Your task to perform on an android device: toggle wifi Image 0: 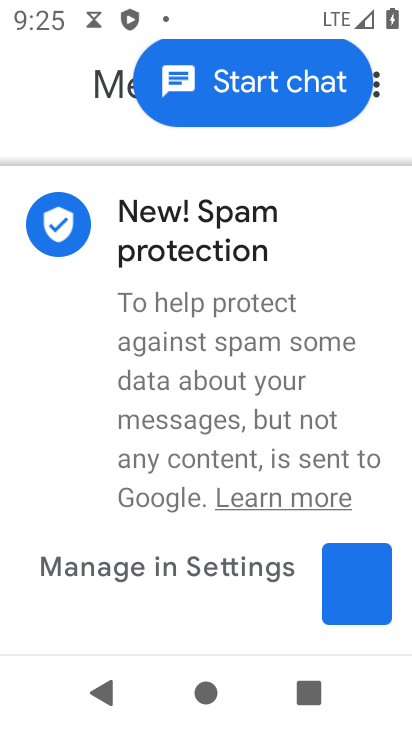
Step 0: press home button
Your task to perform on an android device: toggle wifi Image 1: 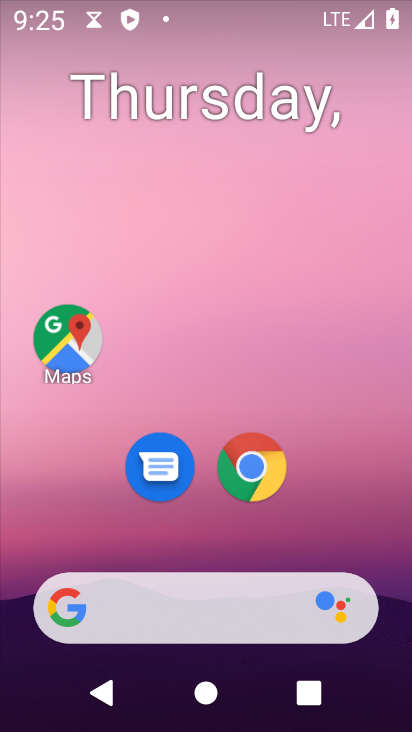
Step 1: drag from (207, 539) to (218, 71)
Your task to perform on an android device: toggle wifi Image 2: 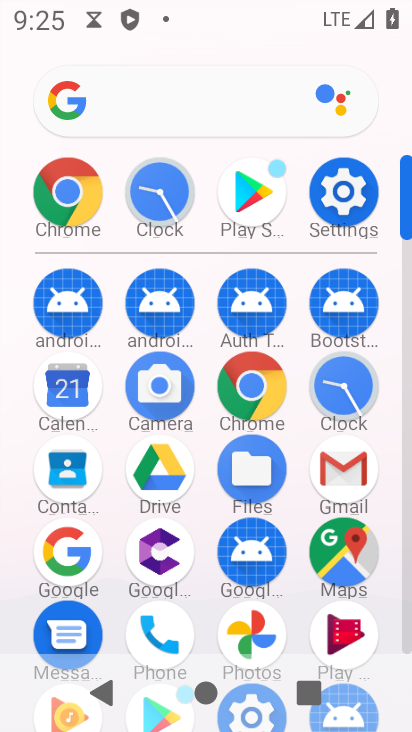
Step 2: click (339, 184)
Your task to perform on an android device: toggle wifi Image 3: 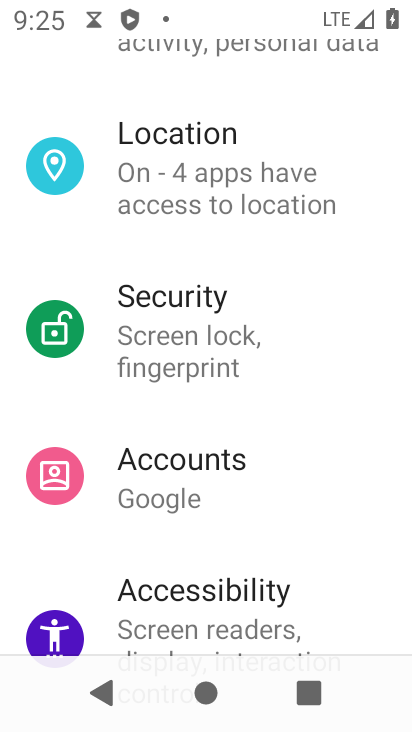
Step 3: drag from (219, 264) to (252, 362)
Your task to perform on an android device: toggle wifi Image 4: 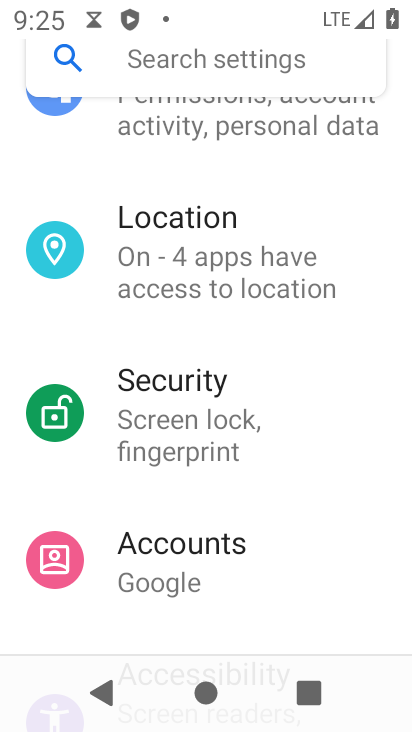
Step 4: drag from (196, 288) to (201, 361)
Your task to perform on an android device: toggle wifi Image 5: 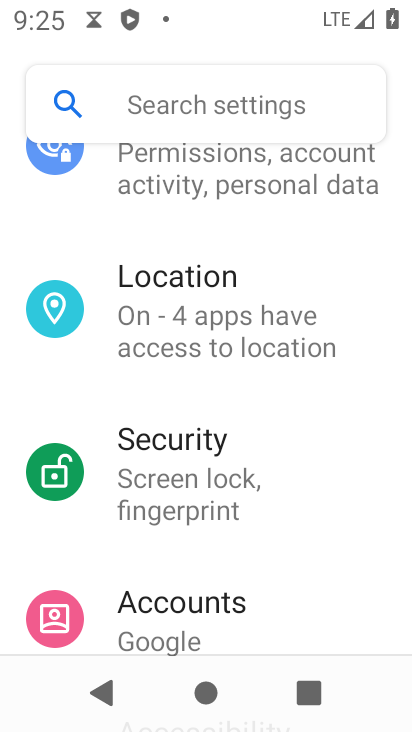
Step 5: drag from (167, 302) to (184, 397)
Your task to perform on an android device: toggle wifi Image 6: 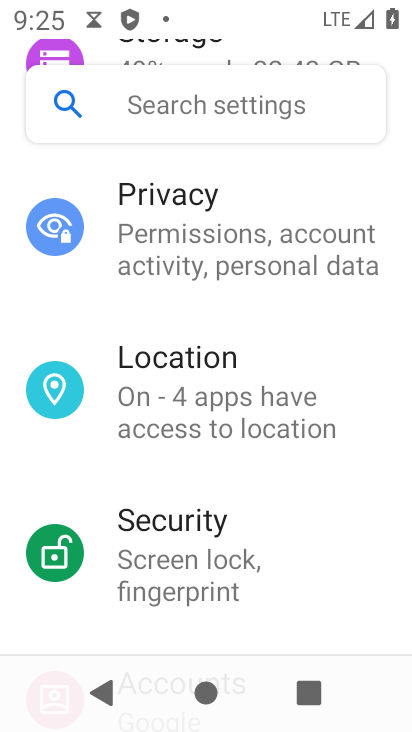
Step 6: drag from (162, 345) to (177, 430)
Your task to perform on an android device: toggle wifi Image 7: 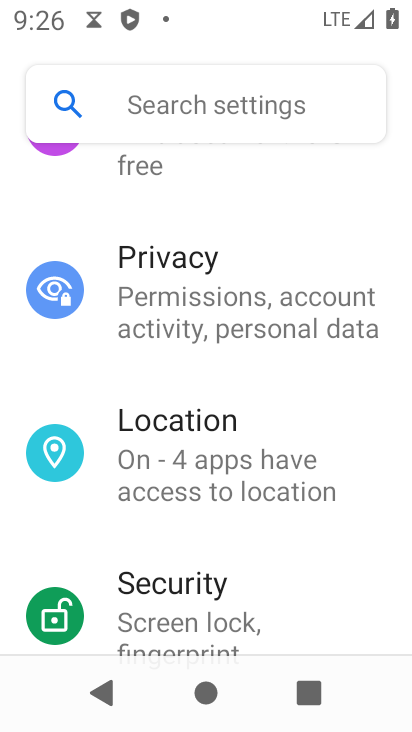
Step 7: drag from (155, 358) to (180, 431)
Your task to perform on an android device: toggle wifi Image 8: 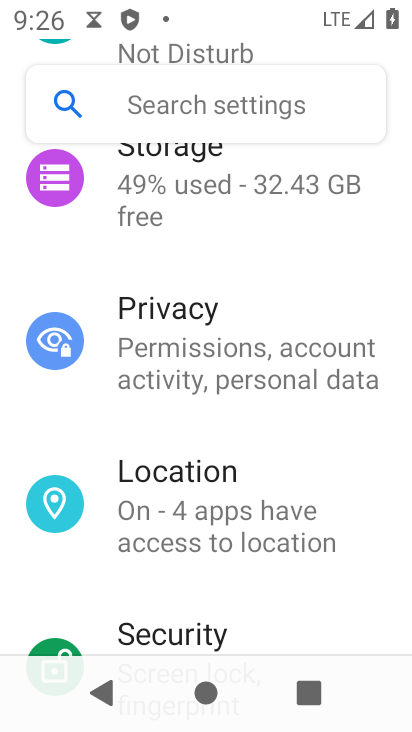
Step 8: drag from (154, 362) to (161, 453)
Your task to perform on an android device: toggle wifi Image 9: 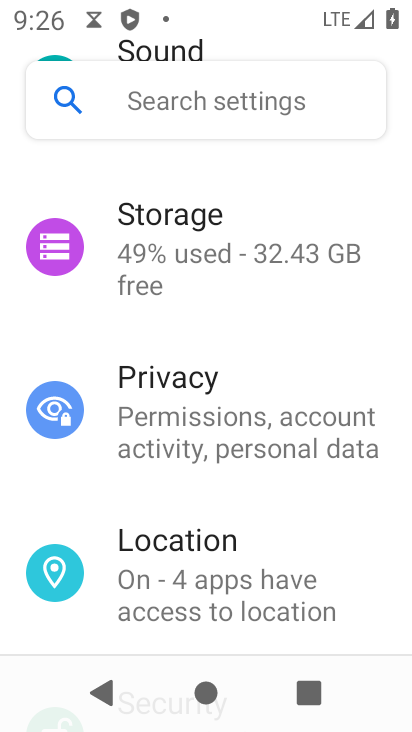
Step 9: drag from (142, 392) to (169, 438)
Your task to perform on an android device: toggle wifi Image 10: 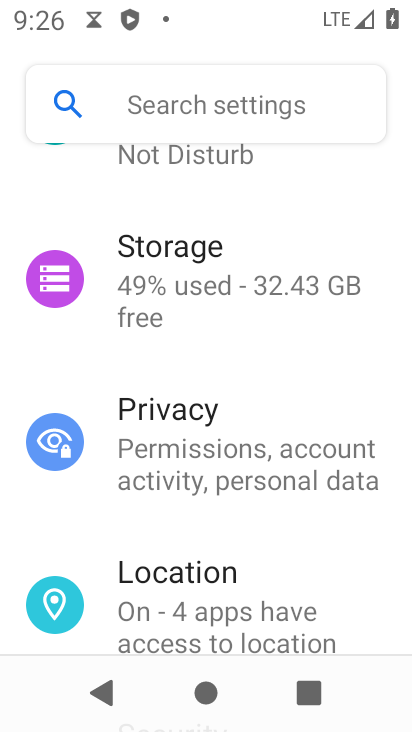
Step 10: drag from (145, 379) to (166, 441)
Your task to perform on an android device: toggle wifi Image 11: 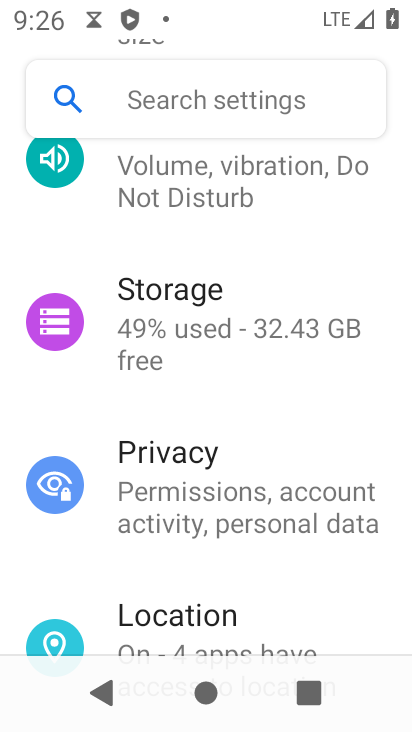
Step 11: drag from (142, 408) to (151, 465)
Your task to perform on an android device: toggle wifi Image 12: 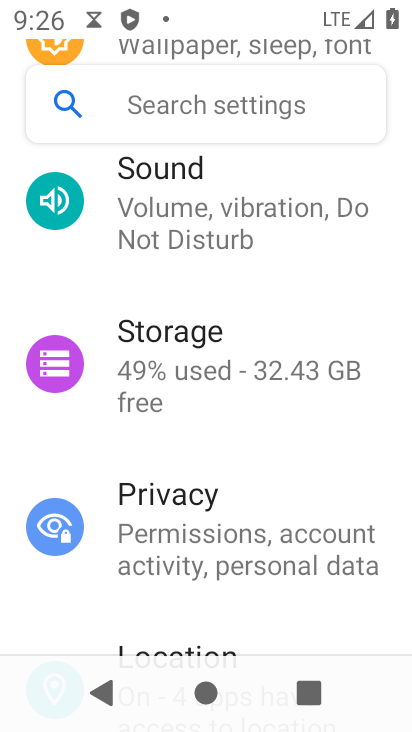
Step 12: drag from (124, 400) to (142, 462)
Your task to perform on an android device: toggle wifi Image 13: 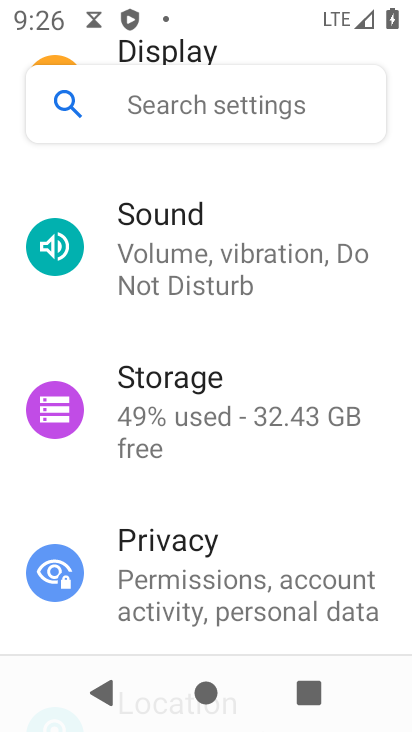
Step 13: drag from (126, 377) to (142, 464)
Your task to perform on an android device: toggle wifi Image 14: 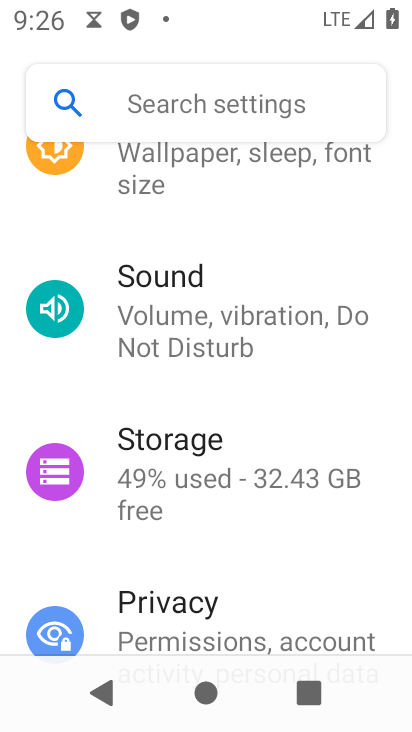
Step 14: drag from (125, 400) to (141, 477)
Your task to perform on an android device: toggle wifi Image 15: 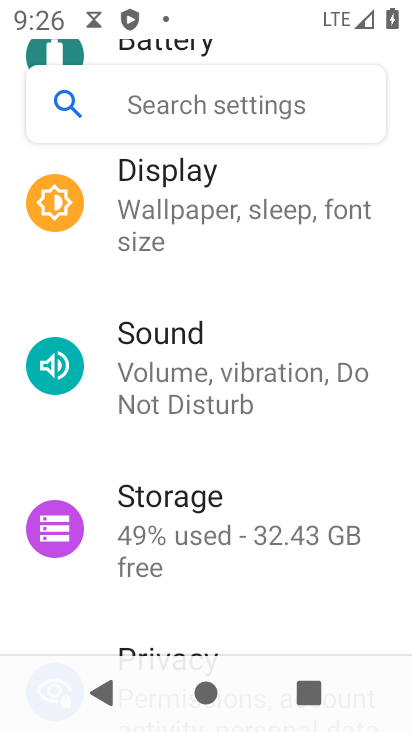
Step 15: drag from (137, 398) to (145, 481)
Your task to perform on an android device: toggle wifi Image 16: 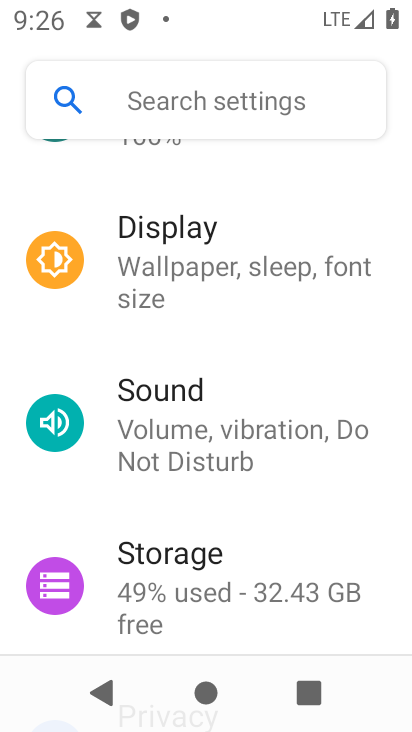
Step 16: drag from (133, 407) to (157, 498)
Your task to perform on an android device: toggle wifi Image 17: 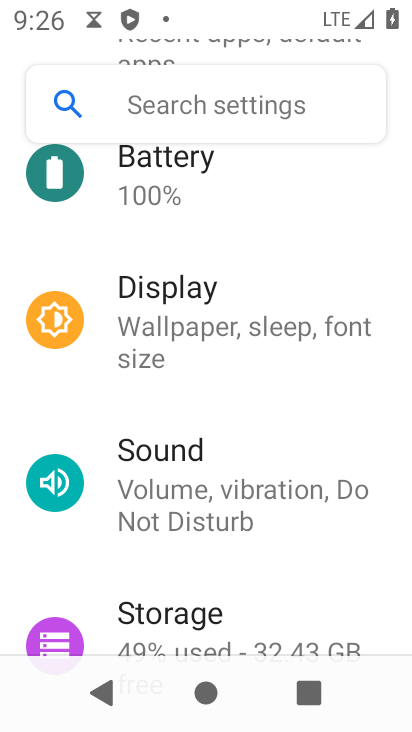
Step 17: drag from (140, 416) to (156, 502)
Your task to perform on an android device: toggle wifi Image 18: 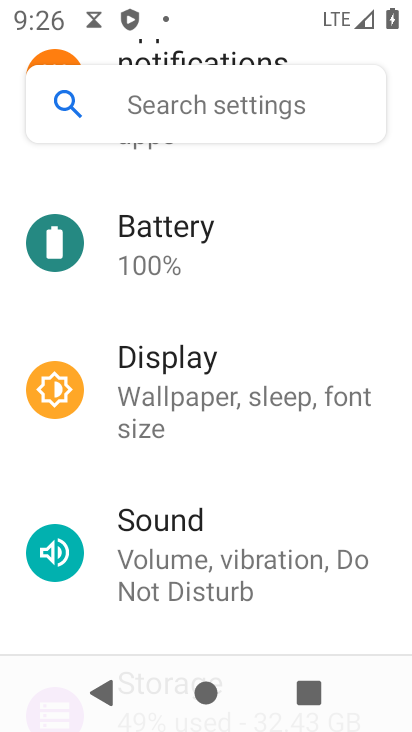
Step 18: drag from (134, 444) to (151, 516)
Your task to perform on an android device: toggle wifi Image 19: 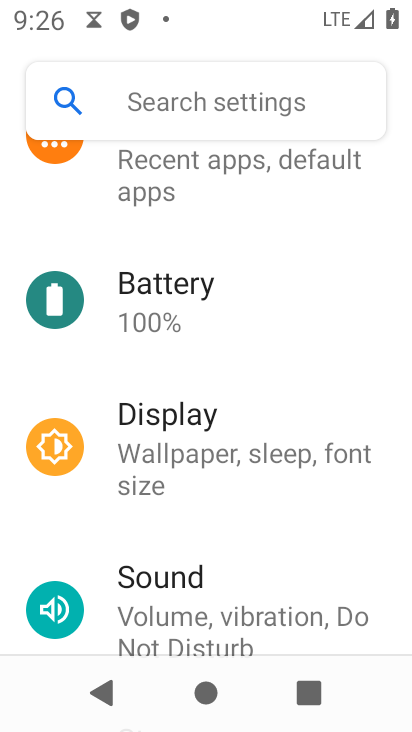
Step 19: drag from (136, 430) to (146, 509)
Your task to perform on an android device: toggle wifi Image 20: 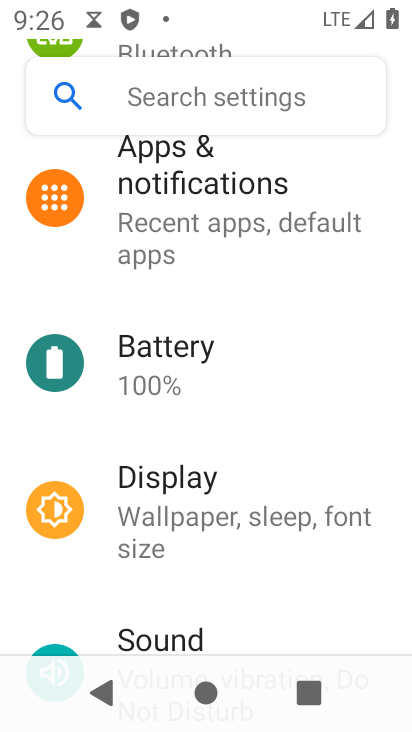
Step 20: drag from (115, 423) to (140, 501)
Your task to perform on an android device: toggle wifi Image 21: 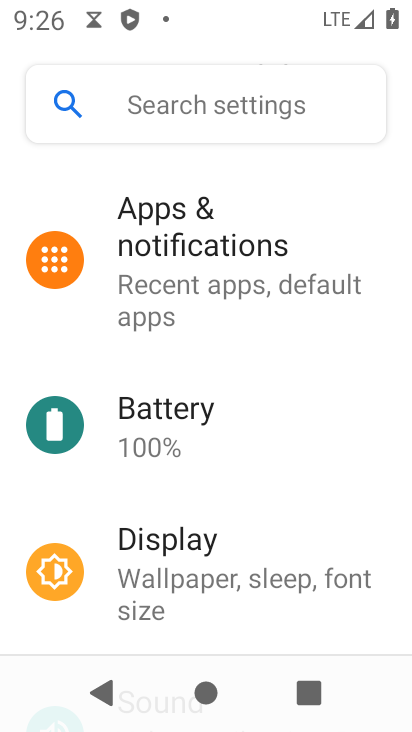
Step 21: drag from (123, 442) to (134, 508)
Your task to perform on an android device: toggle wifi Image 22: 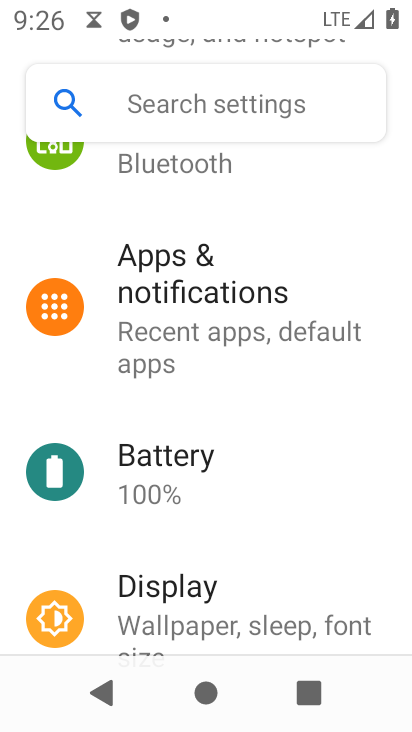
Step 22: drag from (123, 461) to (143, 527)
Your task to perform on an android device: toggle wifi Image 23: 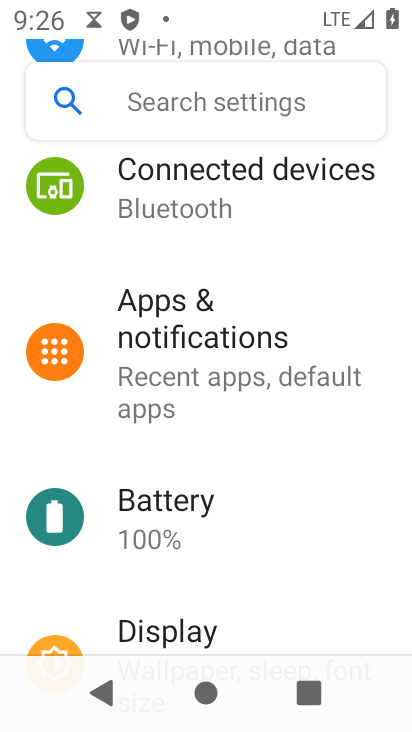
Step 23: drag from (123, 493) to (147, 553)
Your task to perform on an android device: toggle wifi Image 24: 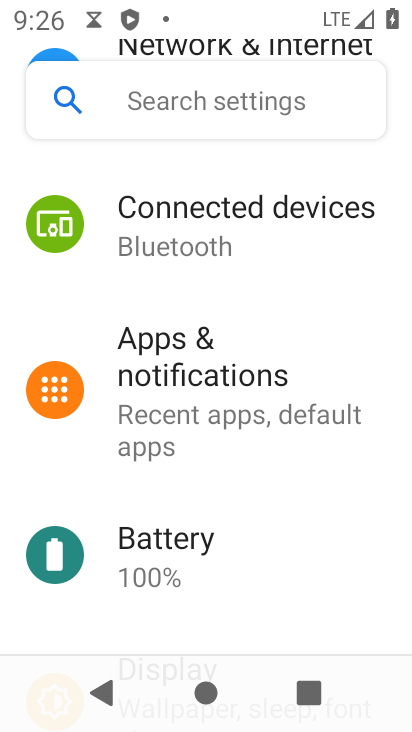
Step 24: drag from (139, 449) to (154, 525)
Your task to perform on an android device: toggle wifi Image 25: 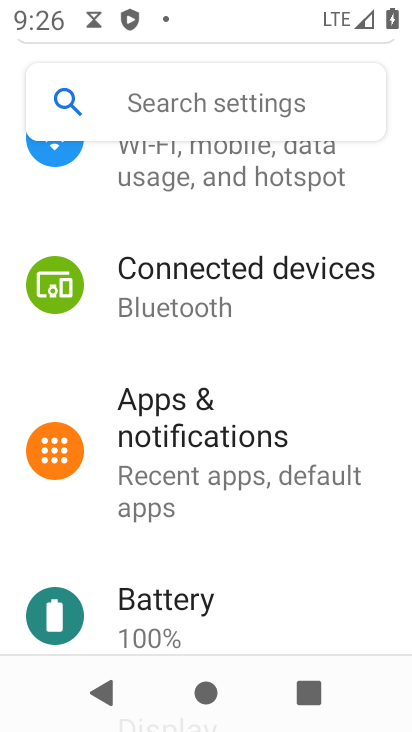
Step 25: drag from (142, 458) to (167, 524)
Your task to perform on an android device: toggle wifi Image 26: 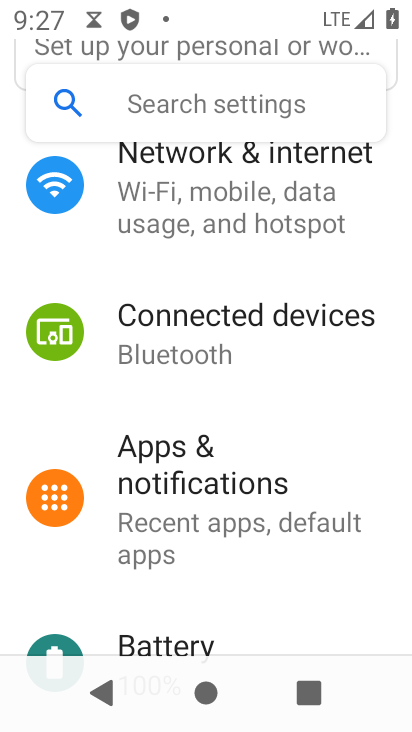
Step 26: drag from (149, 469) to (170, 535)
Your task to perform on an android device: toggle wifi Image 27: 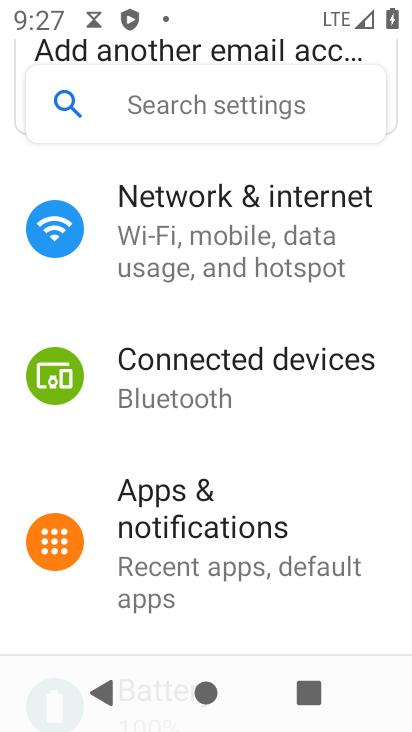
Step 27: drag from (149, 458) to (166, 535)
Your task to perform on an android device: toggle wifi Image 28: 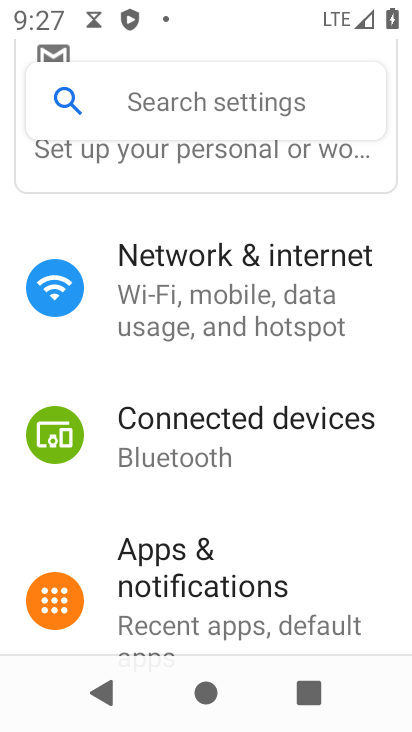
Step 28: drag from (145, 504) to (165, 563)
Your task to perform on an android device: toggle wifi Image 29: 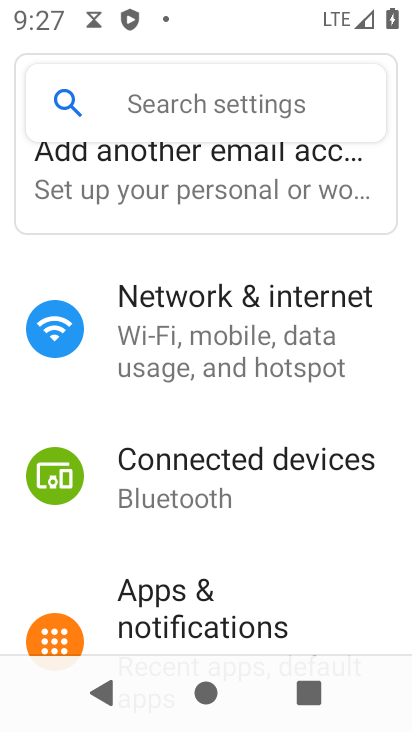
Step 29: drag from (140, 508) to (138, 588)
Your task to perform on an android device: toggle wifi Image 30: 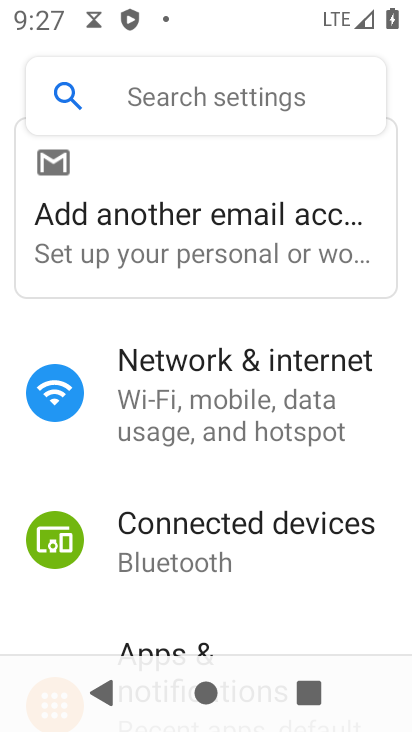
Step 30: click (171, 441)
Your task to perform on an android device: toggle wifi Image 31: 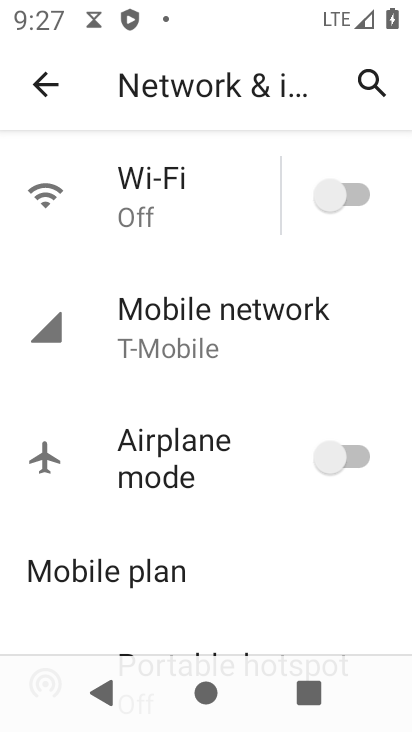
Step 31: click (339, 203)
Your task to perform on an android device: toggle wifi Image 32: 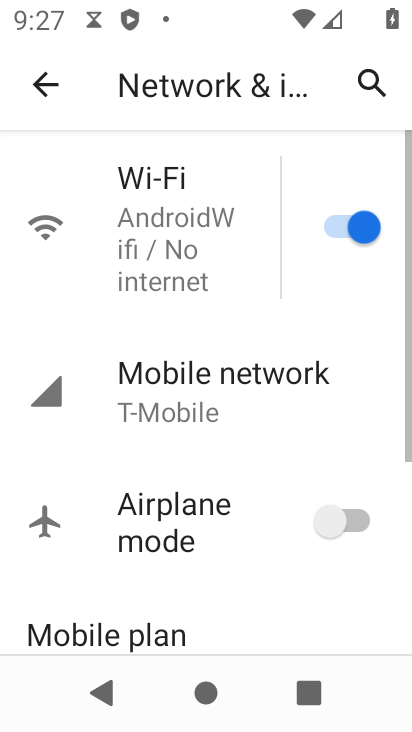
Step 32: task complete